Your task to perform on an android device: toggle show notifications on the lock screen Image 0: 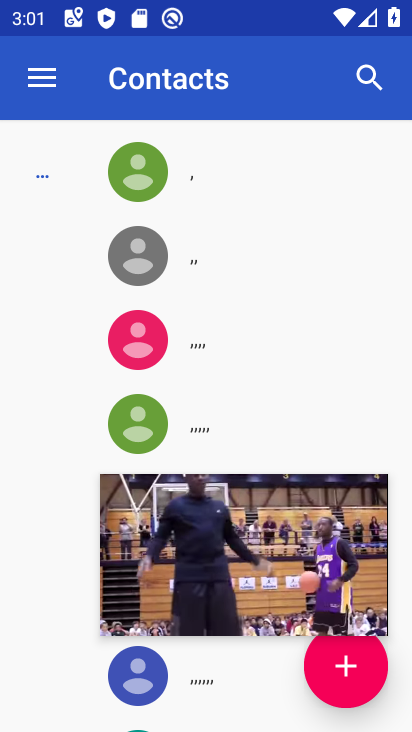
Step 0: press home button
Your task to perform on an android device: toggle show notifications on the lock screen Image 1: 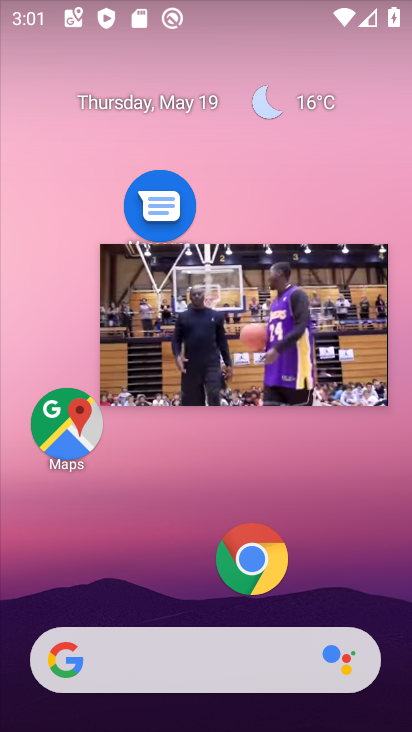
Step 1: click (339, 275)
Your task to perform on an android device: toggle show notifications on the lock screen Image 2: 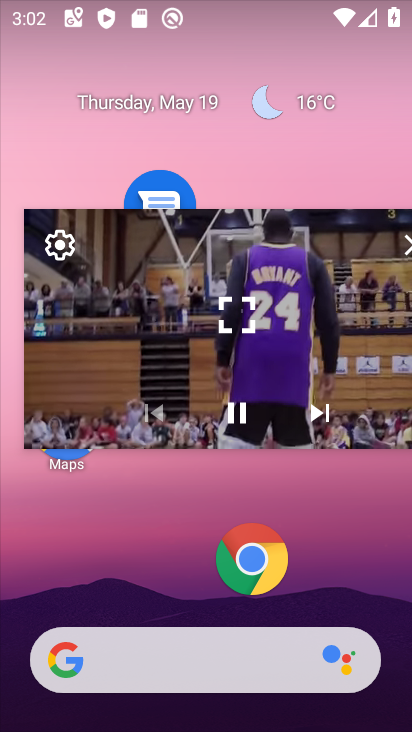
Step 2: click (407, 239)
Your task to perform on an android device: toggle show notifications on the lock screen Image 3: 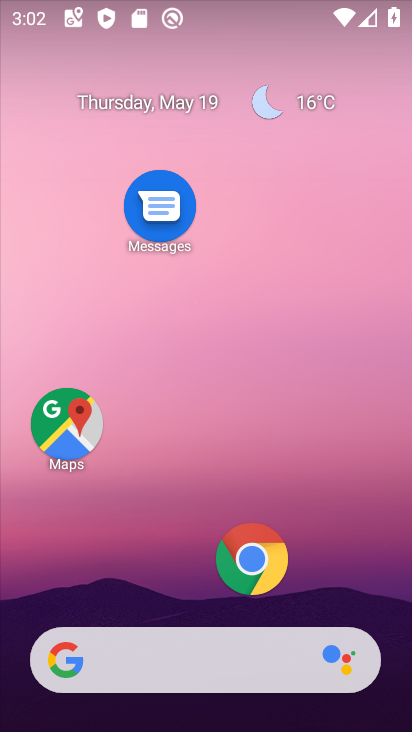
Step 3: drag from (197, 580) to (224, 221)
Your task to perform on an android device: toggle show notifications on the lock screen Image 4: 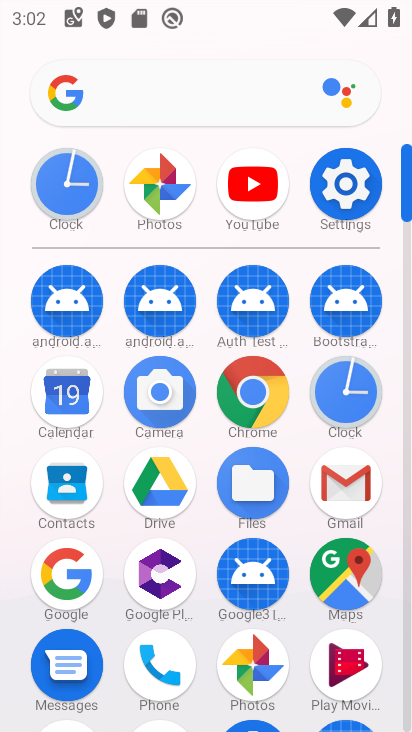
Step 4: click (324, 187)
Your task to perform on an android device: toggle show notifications on the lock screen Image 5: 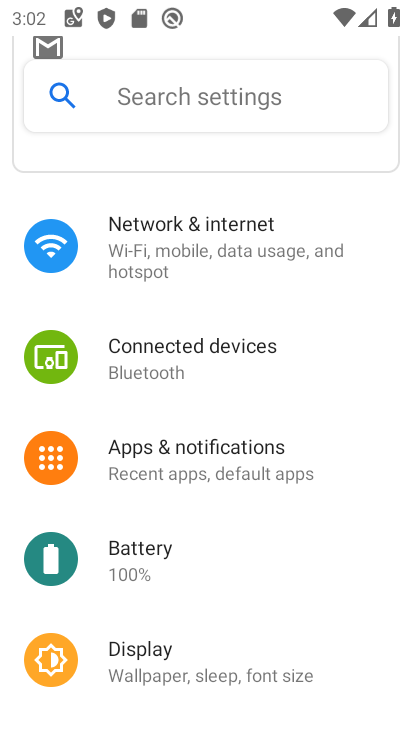
Step 5: click (195, 446)
Your task to perform on an android device: toggle show notifications on the lock screen Image 6: 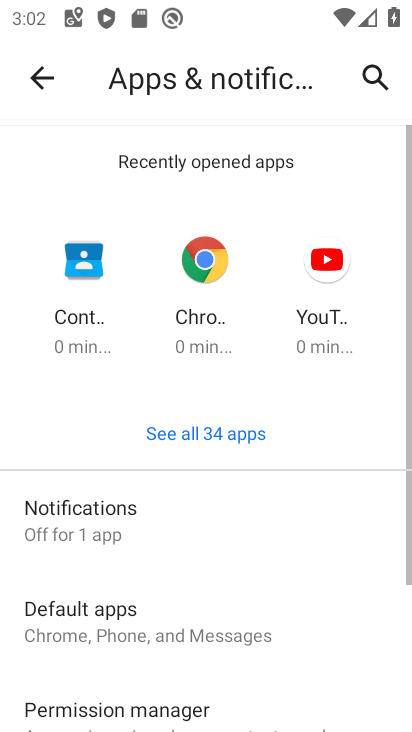
Step 6: click (171, 501)
Your task to perform on an android device: toggle show notifications on the lock screen Image 7: 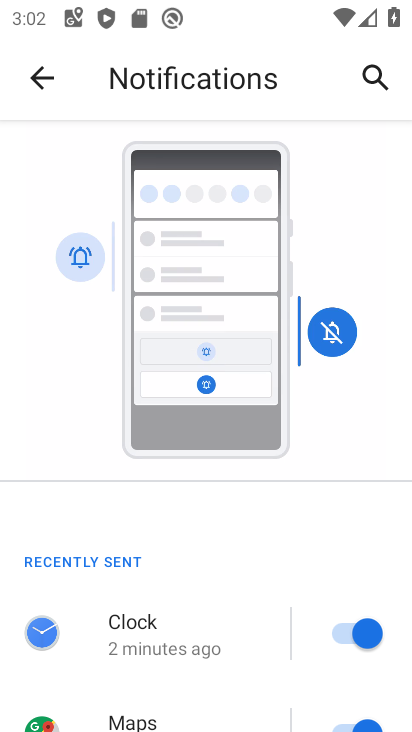
Step 7: drag from (211, 569) to (246, 274)
Your task to perform on an android device: toggle show notifications on the lock screen Image 8: 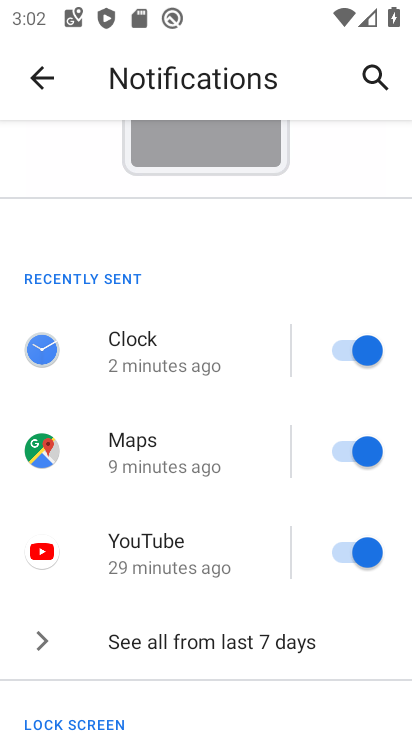
Step 8: drag from (224, 642) to (239, 373)
Your task to perform on an android device: toggle show notifications on the lock screen Image 9: 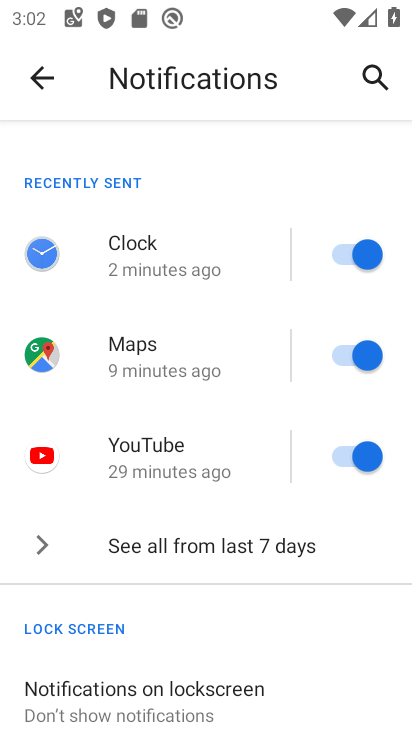
Step 9: drag from (184, 671) to (205, 456)
Your task to perform on an android device: toggle show notifications on the lock screen Image 10: 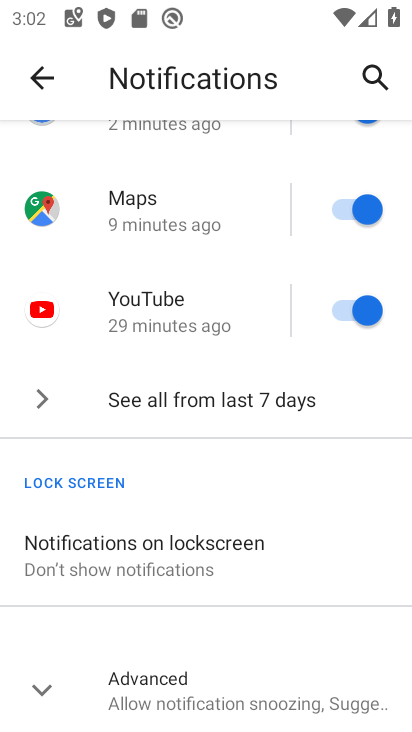
Step 10: click (164, 556)
Your task to perform on an android device: toggle show notifications on the lock screen Image 11: 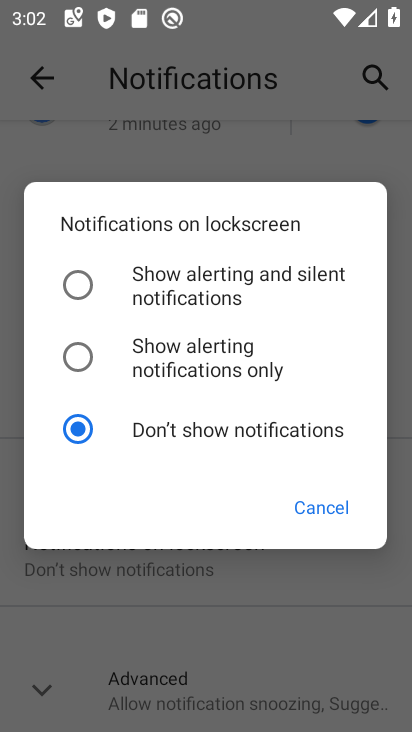
Step 11: click (164, 280)
Your task to perform on an android device: toggle show notifications on the lock screen Image 12: 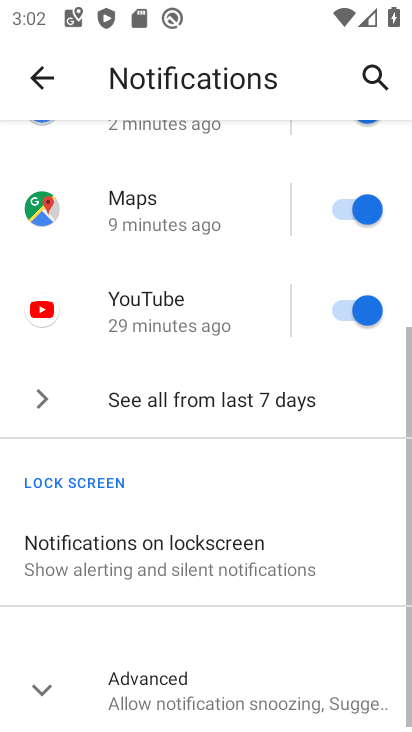
Step 12: task complete